Your task to perform on an android device: toggle notification dots Image 0: 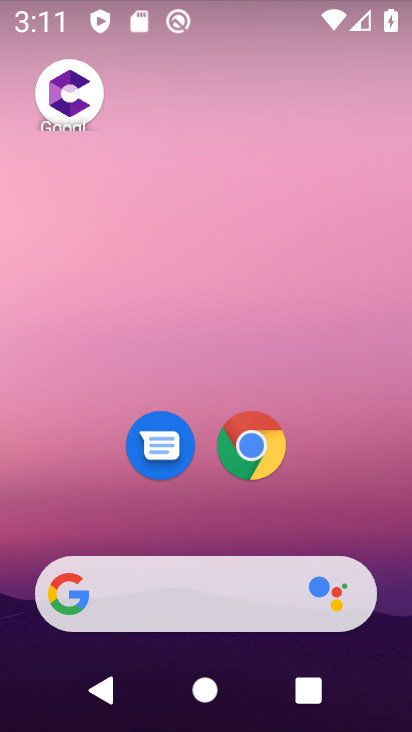
Step 0: drag from (23, 515) to (174, 28)
Your task to perform on an android device: toggle notification dots Image 1: 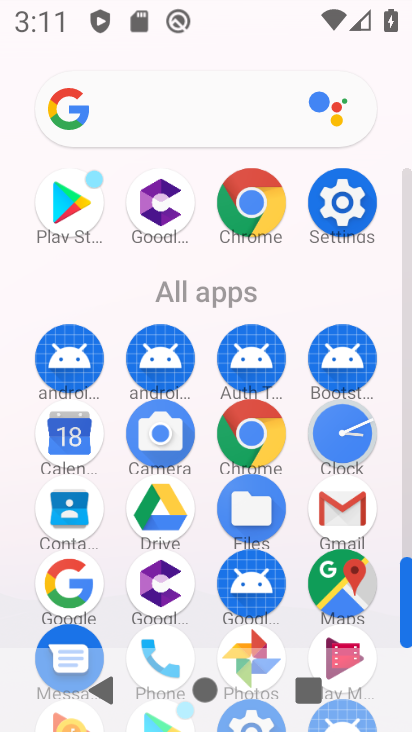
Step 1: click (346, 214)
Your task to perform on an android device: toggle notification dots Image 2: 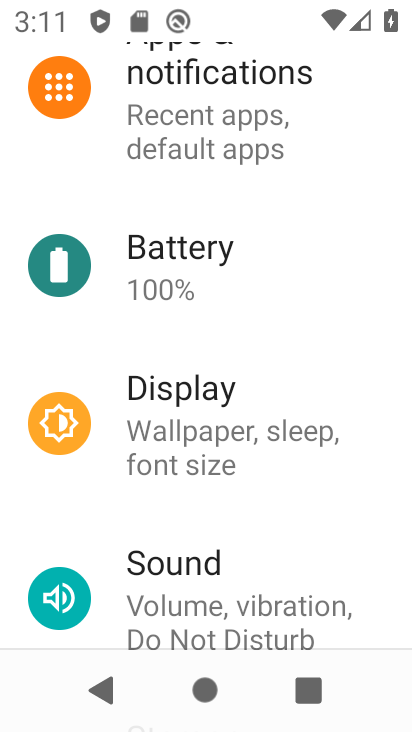
Step 2: drag from (232, 173) to (243, 494)
Your task to perform on an android device: toggle notification dots Image 3: 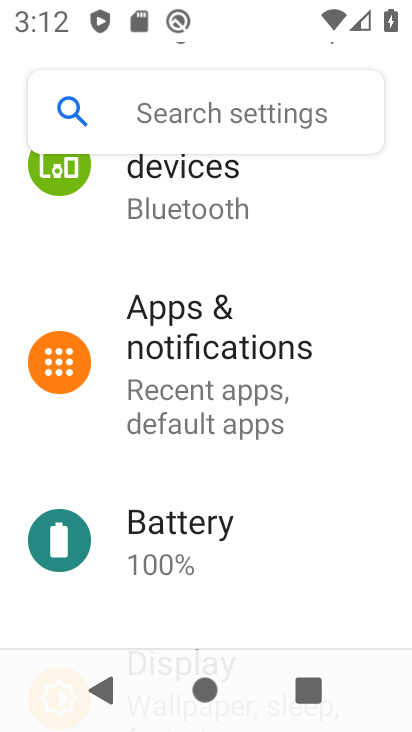
Step 3: click (222, 402)
Your task to perform on an android device: toggle notification dots Image 4: 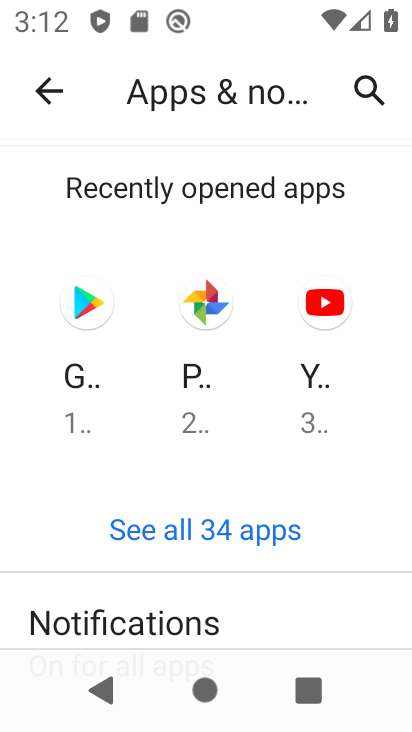
Step 4: click (222, 626)
Your task to perform on an android device: toggle notification dots Image 5: 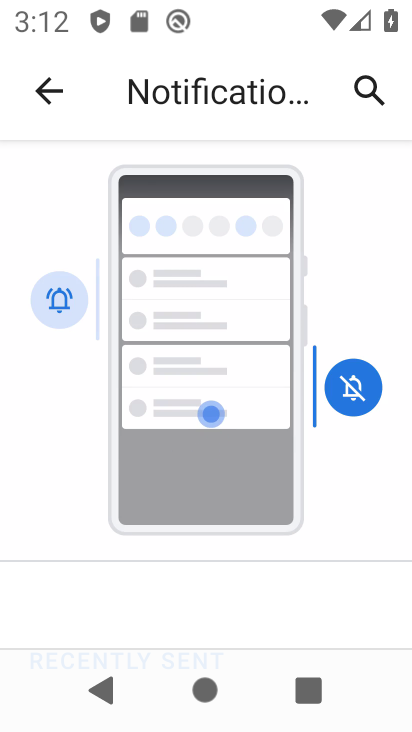
Step 5: drag from (153, 595) to (183, 49)
Your task to perform on an android device: toggle notification dots Image 6: 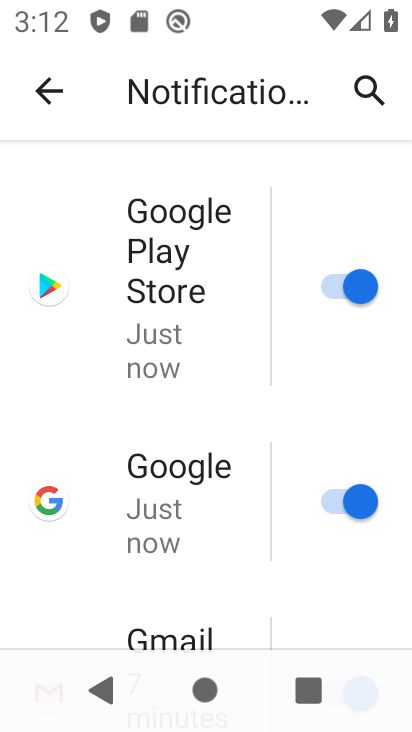
Step 6: drag from (138, 572) to (184, 69)
Your task to perform on an android device: toggle notification dots Image 7: 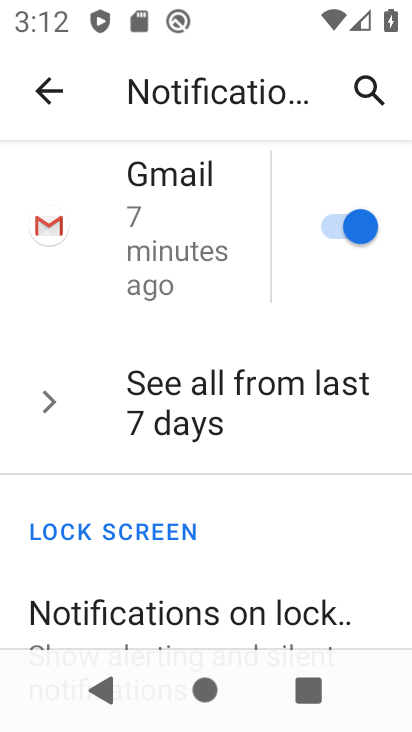
Step 7: drag from (164, 570) to (185, 120)
Your task to perform on an android device: toggle notification dots Image 8: 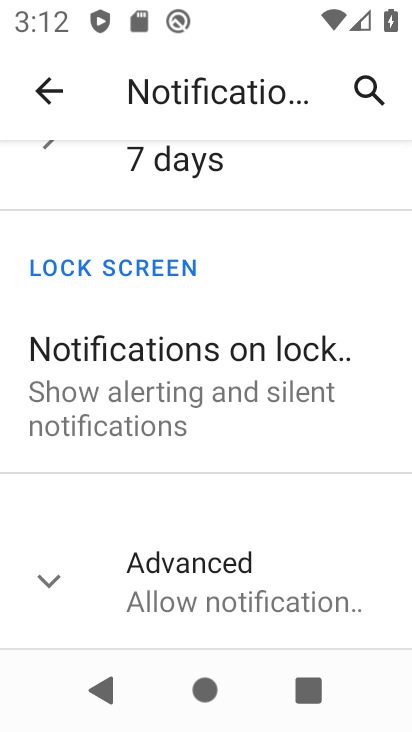
Step 8: click (52, 594)
Your task to perform on an android device: toggle notification dots Image 9: 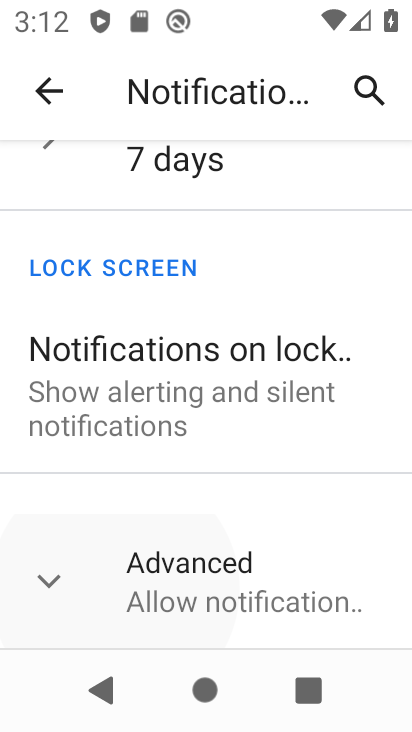
Step 9: drag from (80, 617) to (169, 102)
Your task to perform on an android device: toggle notification dots Image 10: 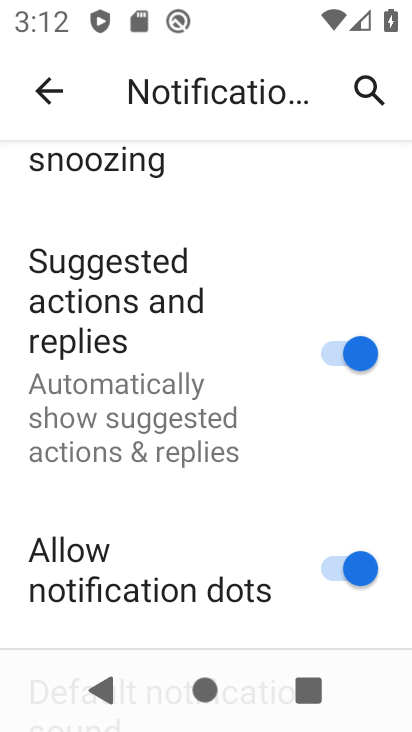
Step 10: click (222, 558)
Your task to perform on an android device: toggle notification dots Image 11: 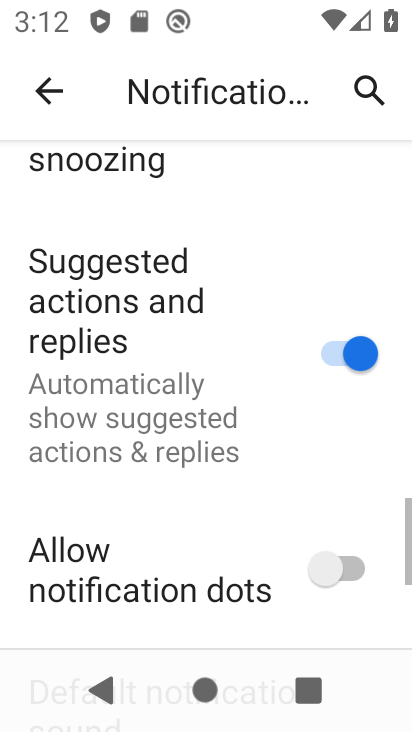
Step 11: task complete